Your task to perform on an android device: See recent photos Image 0: 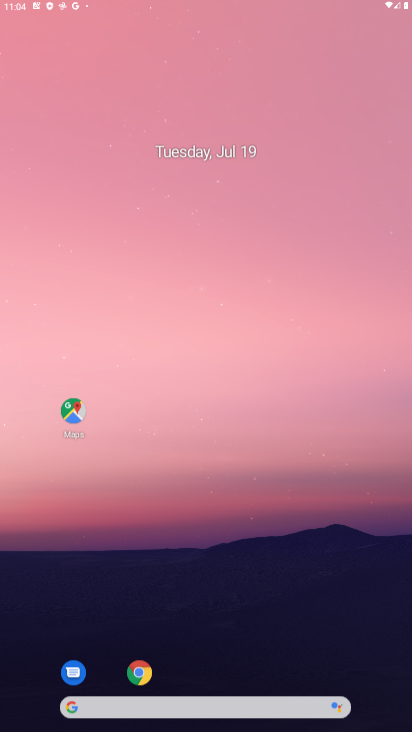
Step 0: drag from (259, 659) to (295, 322)
Your task to perform on an android device: See recent photos Image 1: 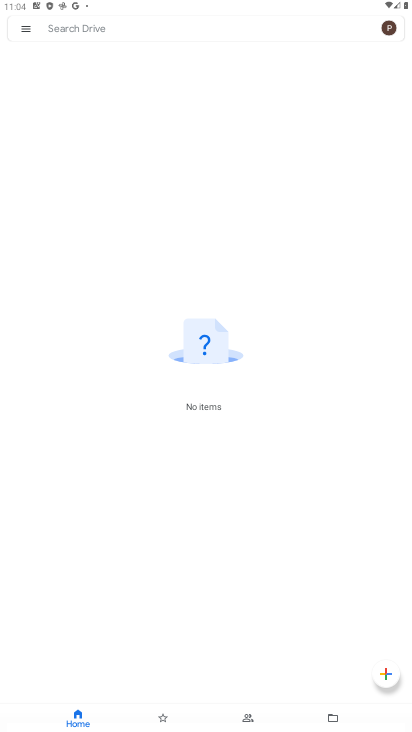
Step 1: press home button
Your task to perform on an android device: See recent photos Image 2: 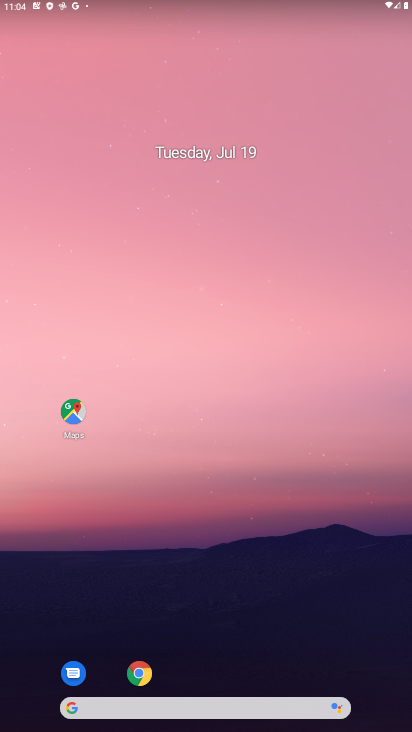
Step 2: drag from (268, 684) to (269, 155)
Your task to perform on an android device: See recent photos Image 3: 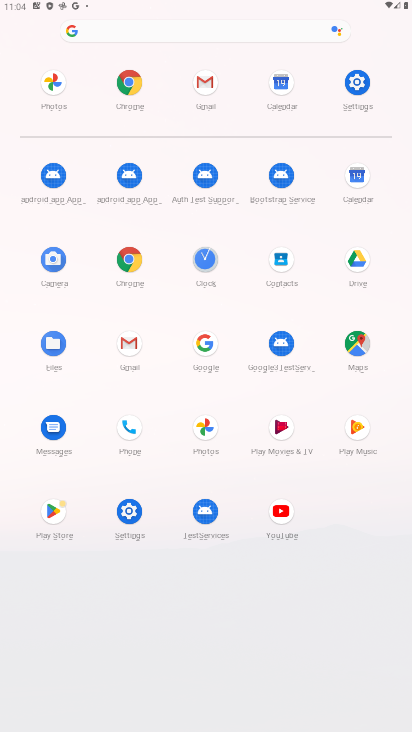
Step 3: click (57, 95)
Your task to perform on an android device: See recent photos Image 4: 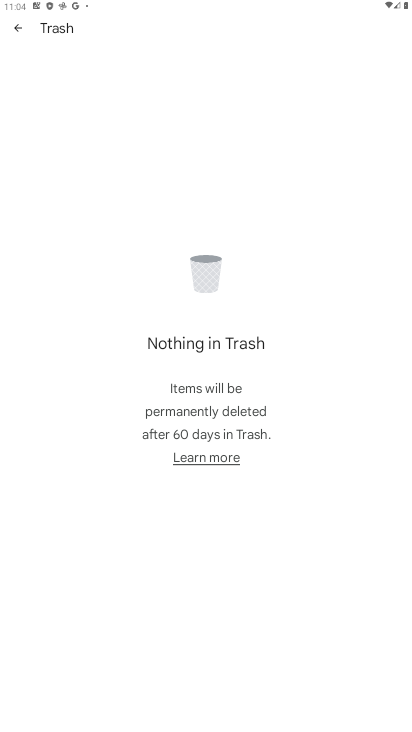
Step 4: click (11, 32)
Your task to perform on an android device: See recent photos Image 5: 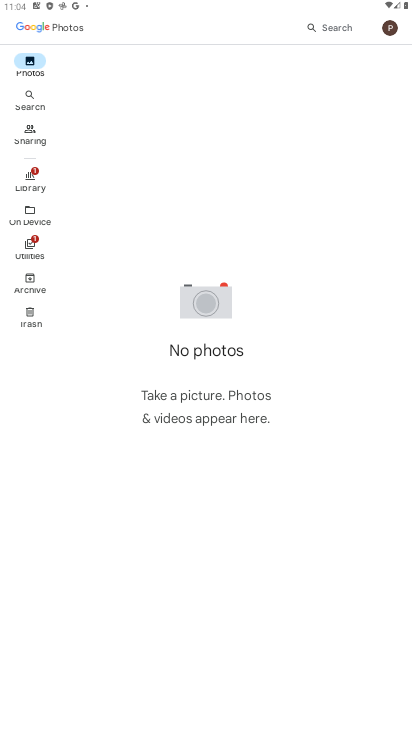
Step 5: task complete